Your task to perform on an android device: change your default location settings in chrome Image 0: 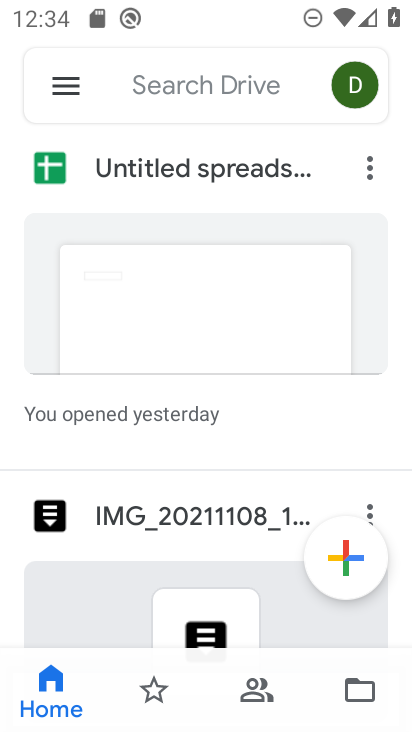
Step 0: press home button
Your task to perform on an android device: change your default location settings in chrome Image 1: 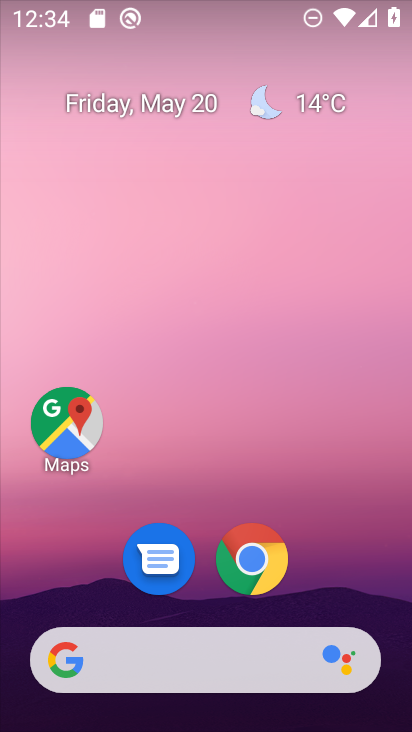
Step 1: click (266, 555)
Your task to perform on an android device: change your default location settings in chrome Image 2: 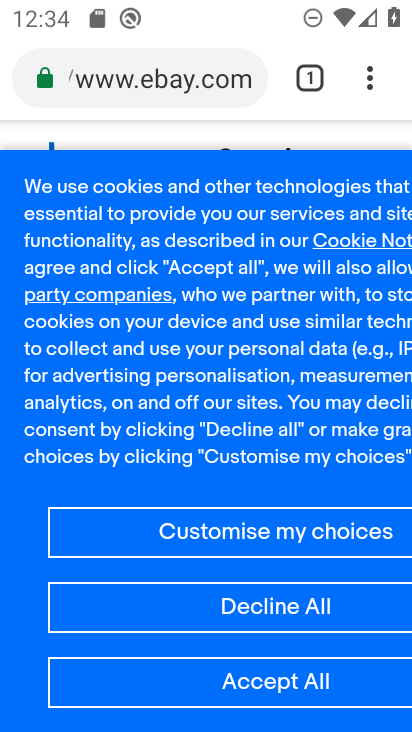
Step 2: click (376, 89)
Your task to perform on an android device: change your default location settings in chrome Image 3: 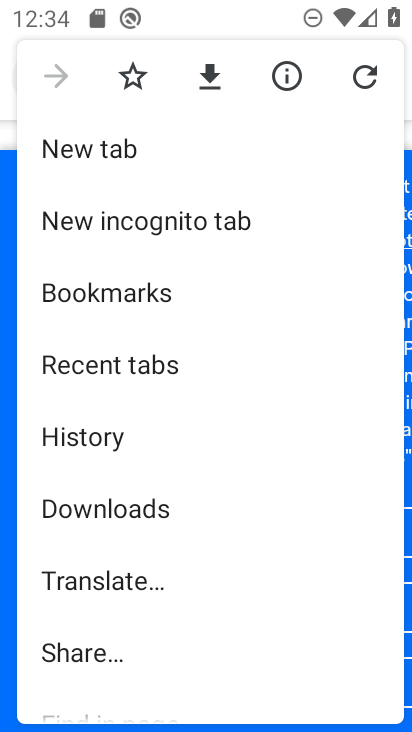
Step 3: click (172, 512)
Your task to perform on an android device: change your default location settings in chrome Image 4: 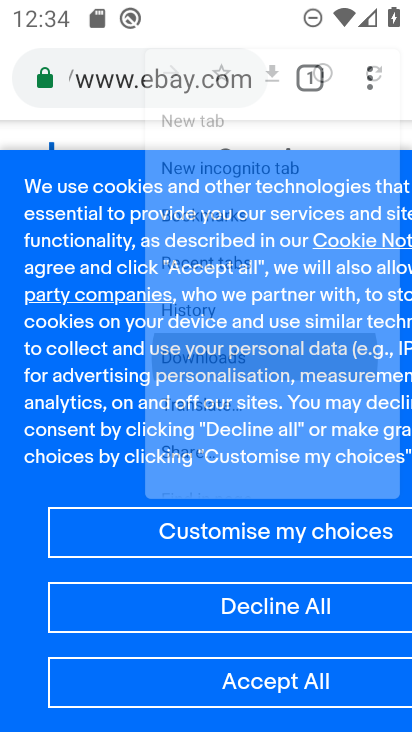
Step 4: drag from (172, 506) to (194, 306)
Your task to perform on an android device: change your default location settings in chrome Image 5: 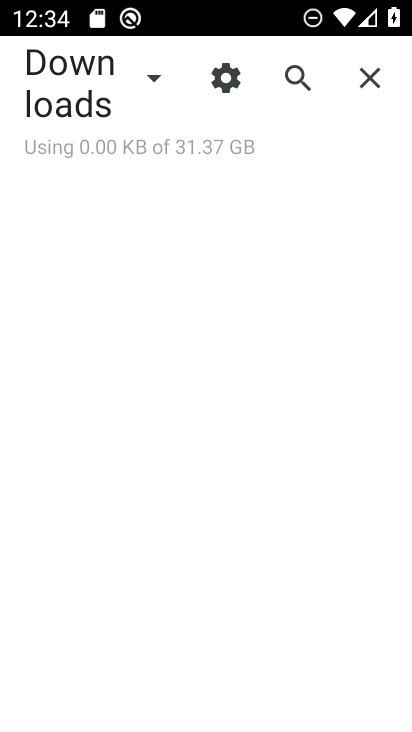
Step 5: click (388, 92)
Your task to perform on an android device: change your default location settings in chrome Image 6: 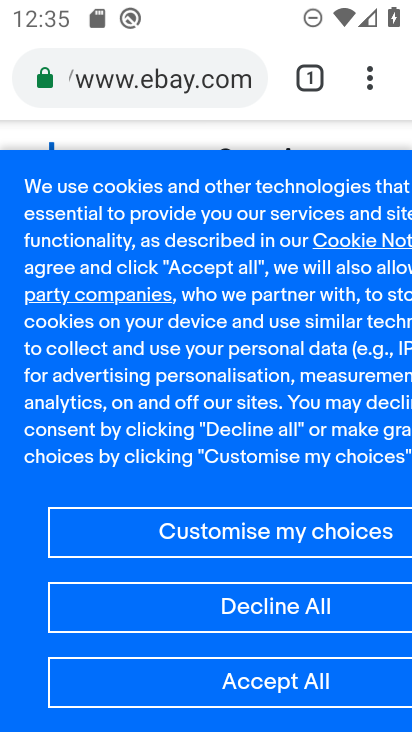
Step 6: task complete